Your task to perform on an android device: toggle sleep mode Image 0: 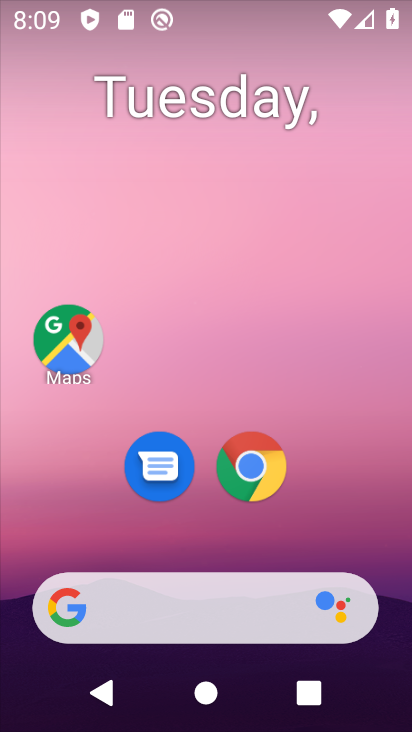
Step 0: drag from (202, 551) to (309, 31)
Your task to perform on an android device: toggle sleep mode Image 1: 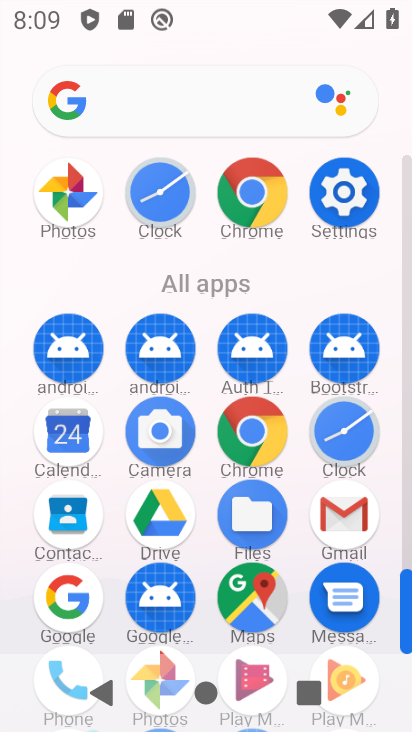
Step 1: click (341, 195)
Your task to perform on an android device: toggle sleep mode Image 2: 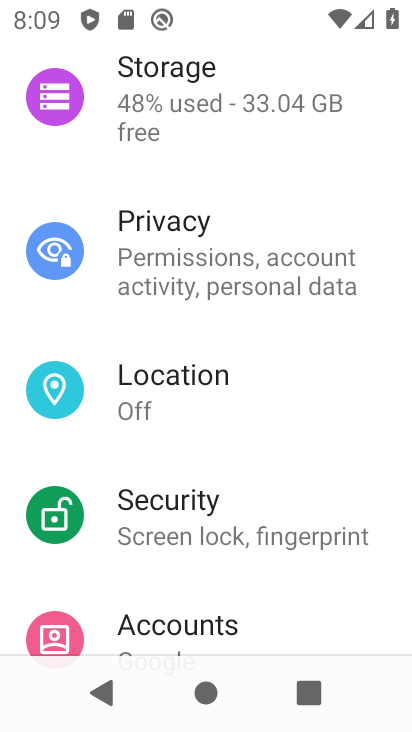
Step 2: drag from (211, 119) to (208, 334)
Your task to perform on an android device: toggle sleep mode Image 3: 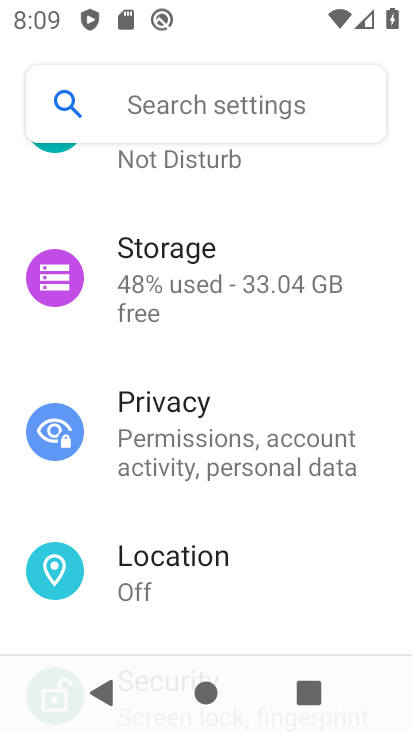
Step 3: click (237, 103)
Your task to perform on an android device: toggle sleep mode Image 4: 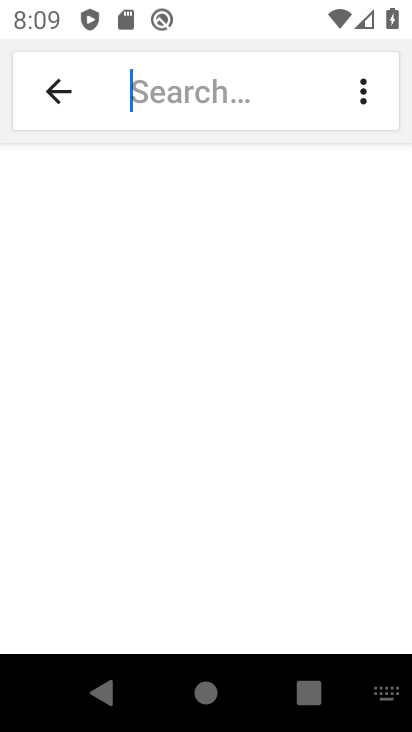
Step 4: type "sleep mode"
Your task to perform on an android device: toggle sleep mode Image 5: 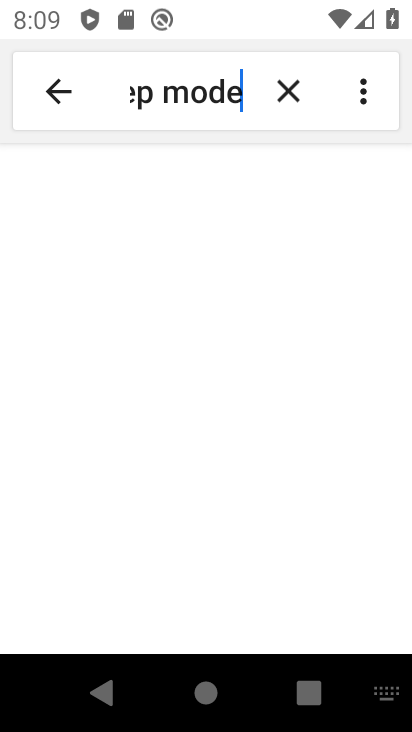
Step 5: task complete